Your task to perform on an android device: delete a single message in the gmail app Image 0: 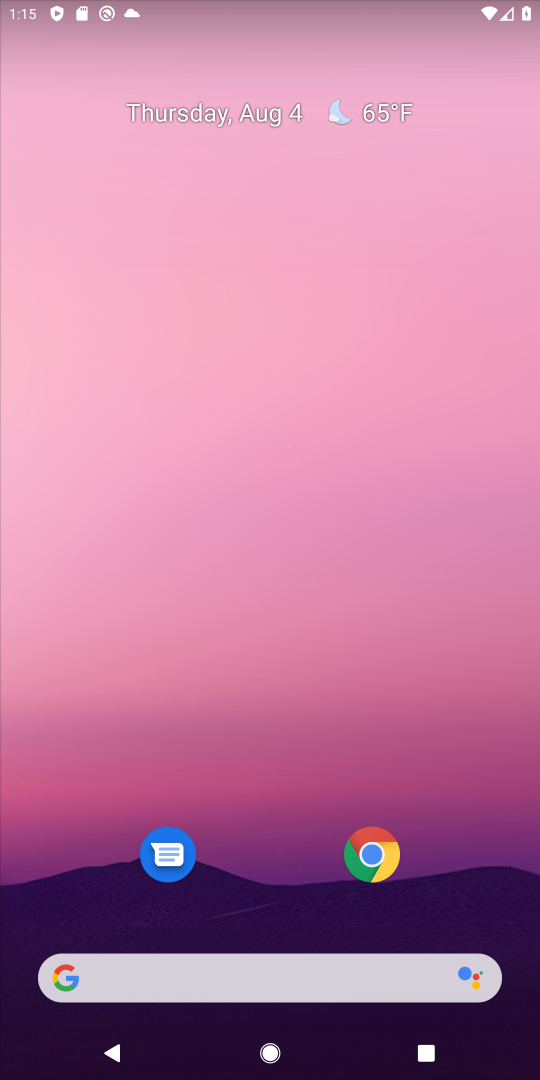
Step 0: drag from (280, 764) to (296, 62)
Your task to perform on an android device: delete a single message in the gmail app Image 1: 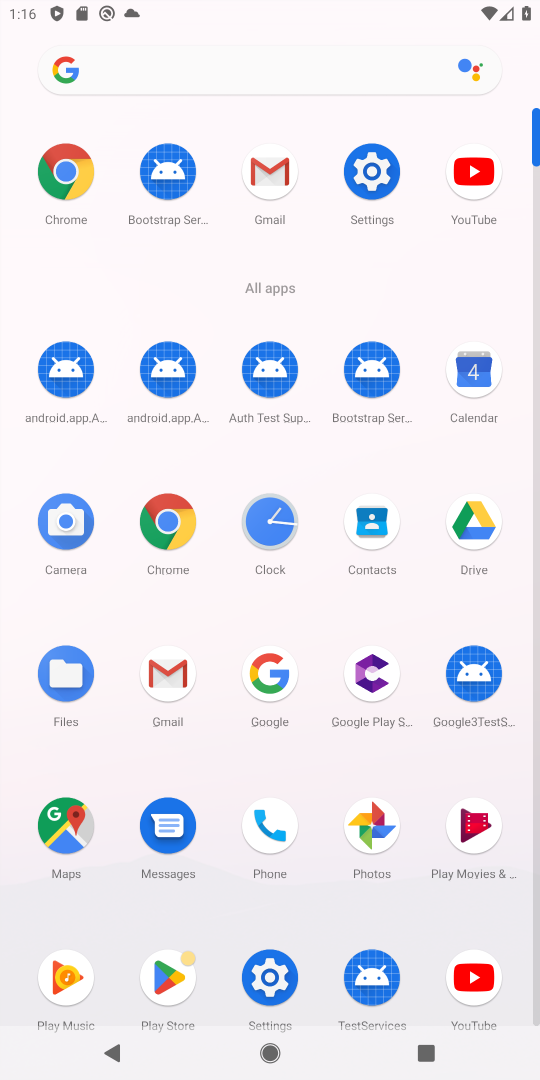
Step 1: click (162, 683)
Your task to perform on an android device: delete a single message in the gmail app Image 2: 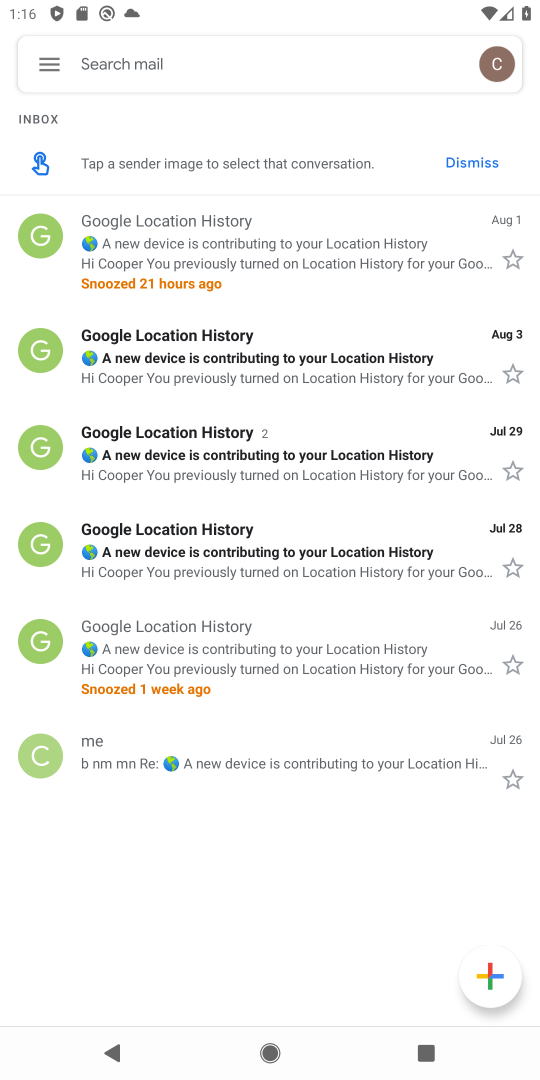
Step 2: task complete